Your task to perform on an android device: Play the last video I watched on Youtube Image 0: 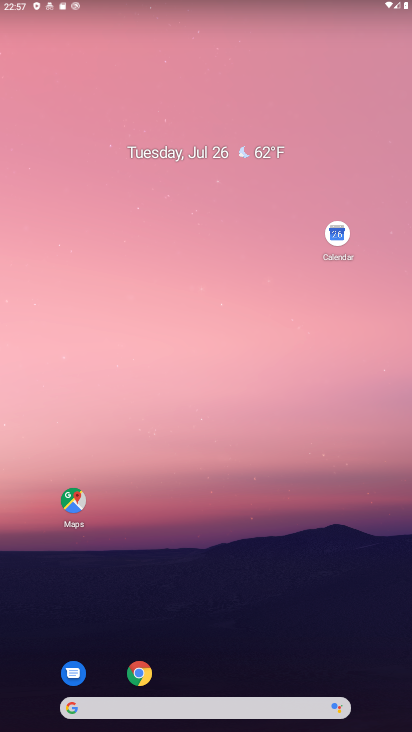
Step 0: click (367, 120)
Your task to perform on an android device: Play the last video I watched on Youtube Image 1: 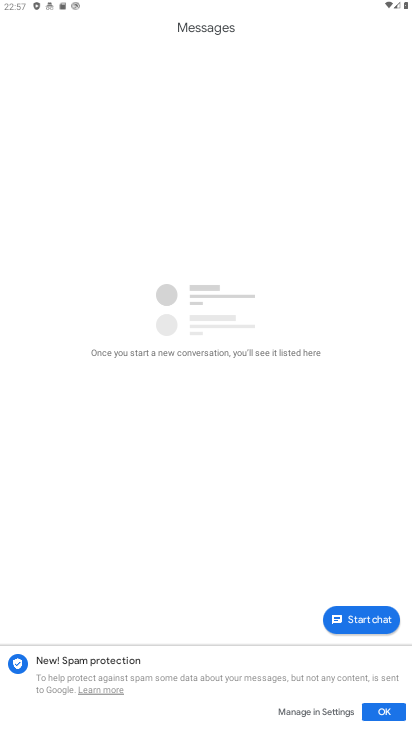
Step 1: click (368, 119)
Your task to perform on an android device: Play the last video I watched on Youtube Image 2: 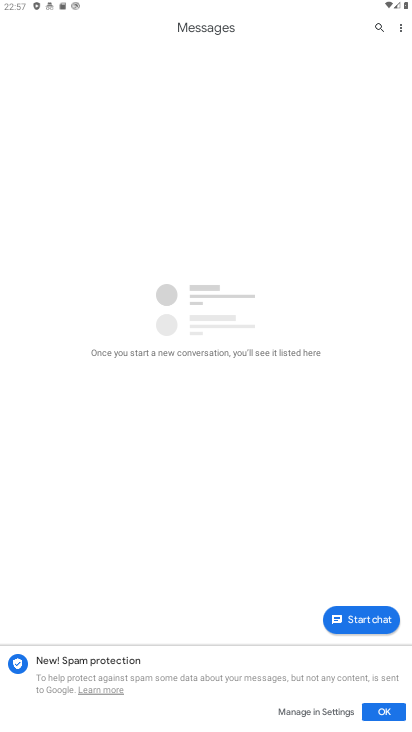
Step 2: press back button
Your task to perform on an android device: Play the last video I watched on Youtube Image 3: 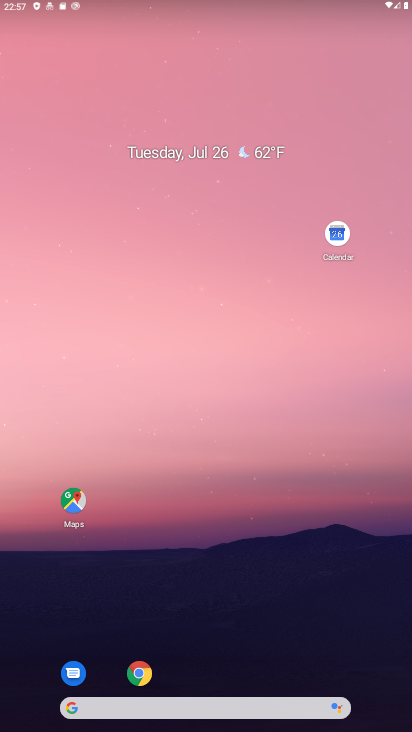
Step 3: drag from (227, 464) to (253, 29)
Your task to perform on an android device: Play the last video I watched on Youtube Image 4: 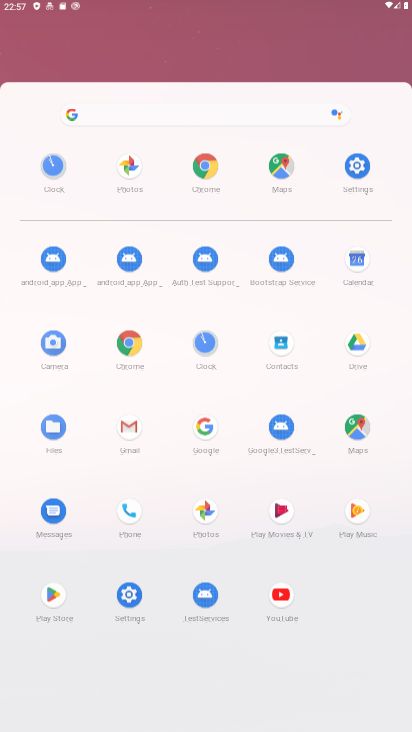
Step 4: drag from (285, 299) to (285, 12)
Your task to perform on an android device: Play the last video I watched on Youtube Image 5: 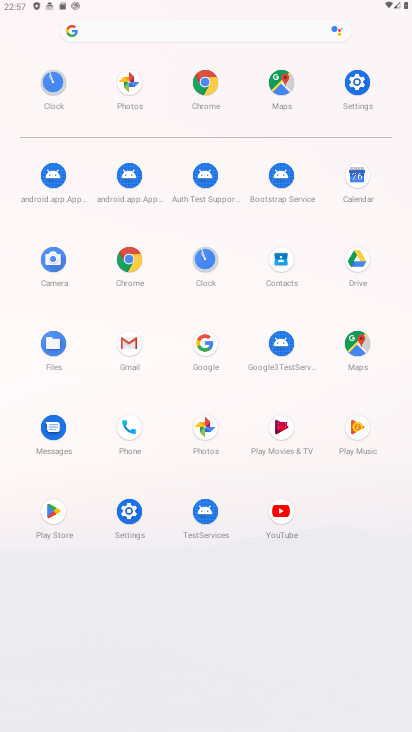
Step 5: click (278, 515)
Your task to perform on an android device: Play the last video I watched on Youtube Image 6: 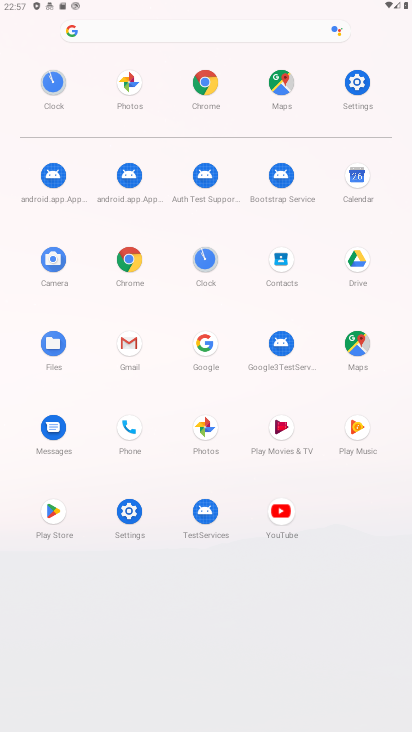
Step 6: click (284, 510)
Your task to perform on an android device: Play the last video I watched on Youtube Image 7: 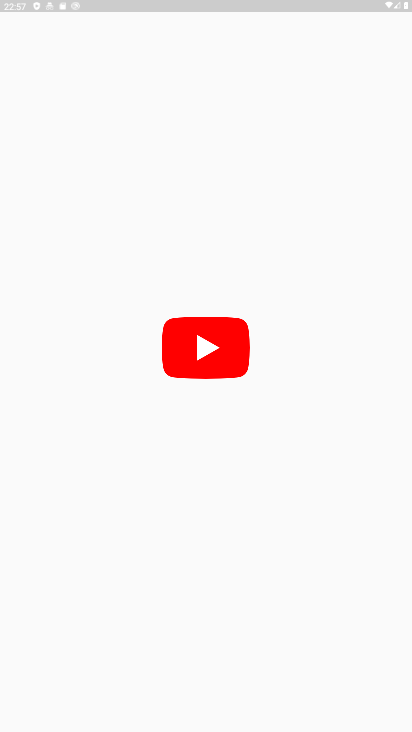
Step 7: click (285, 510)
Your task to perform on an android device: Play the last video I watched on Youtube Image 8: 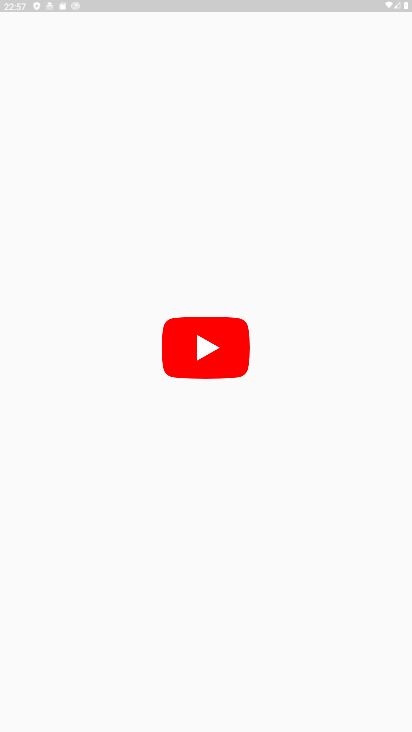
Step 8: click (285, 510)
Your task to perform on an android device: Play the last video I watched on Youtube Image 9: 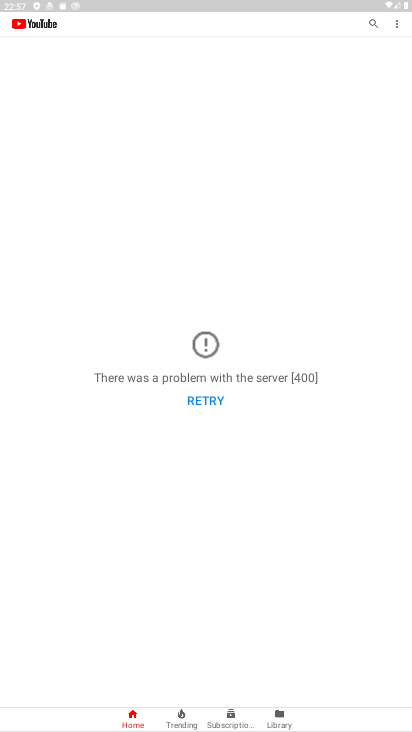
Step 9: task complete